Your task to perform on an android device: View the shopping cart on amazon. Search for jbl flip 4 on amazon, select the first entry, and add it to the cart. Image 0: 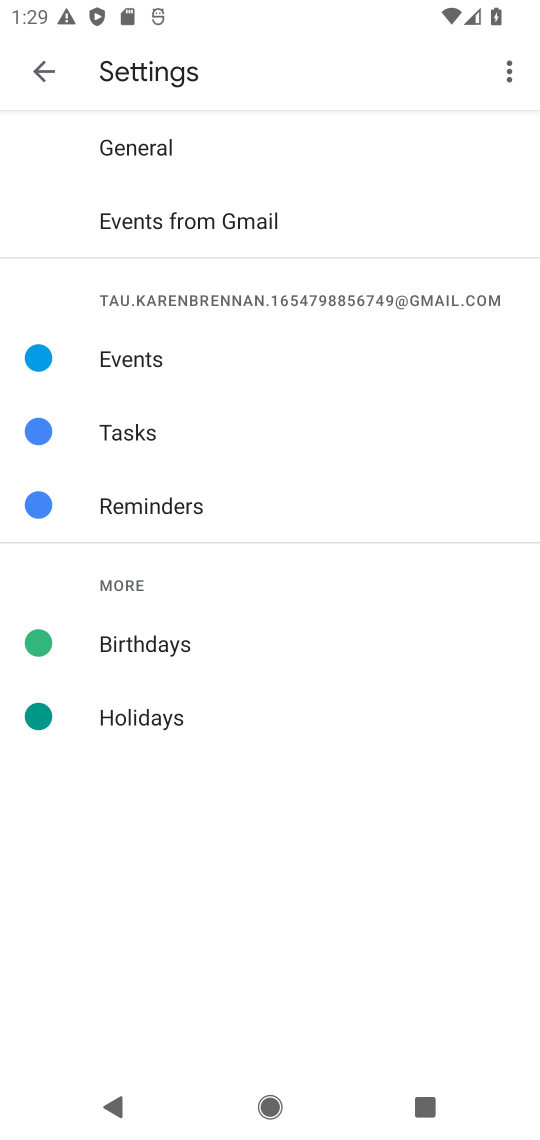
Step 0: press home button
Your task to perform on an android device: View the shopping cart on amazon. Search for jbl flip 4 on amazon, select the first entry, and add it to the cart. Image 1: 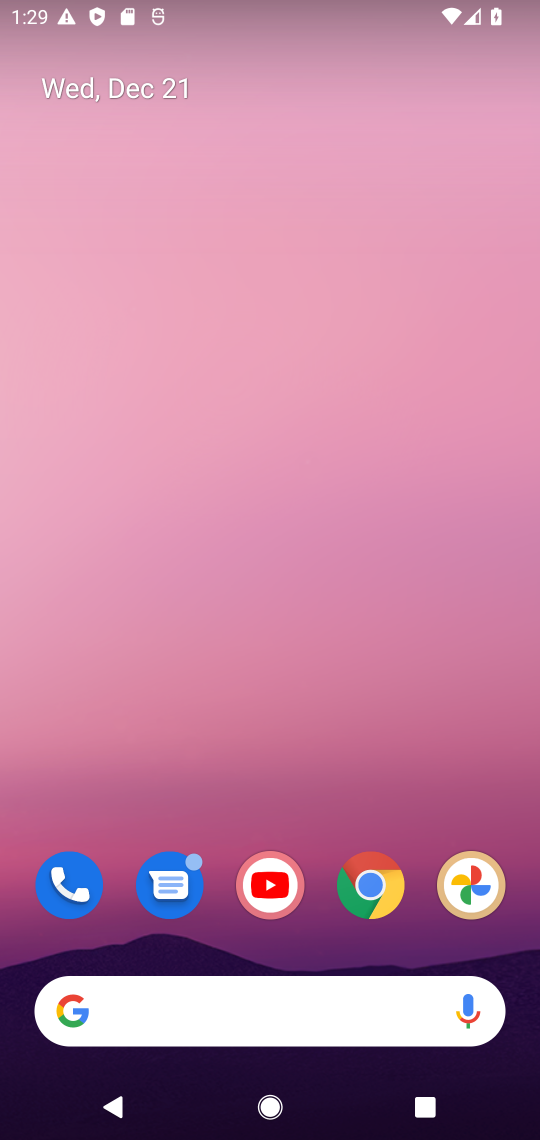
Step 1: drag from (380, 1041) to (301, 421)
Your task to perform on an android device: View the shopping cart on amazon. Search for jbl flip 4 on amazon, select the first entry, and add it to the cart. Image 2: 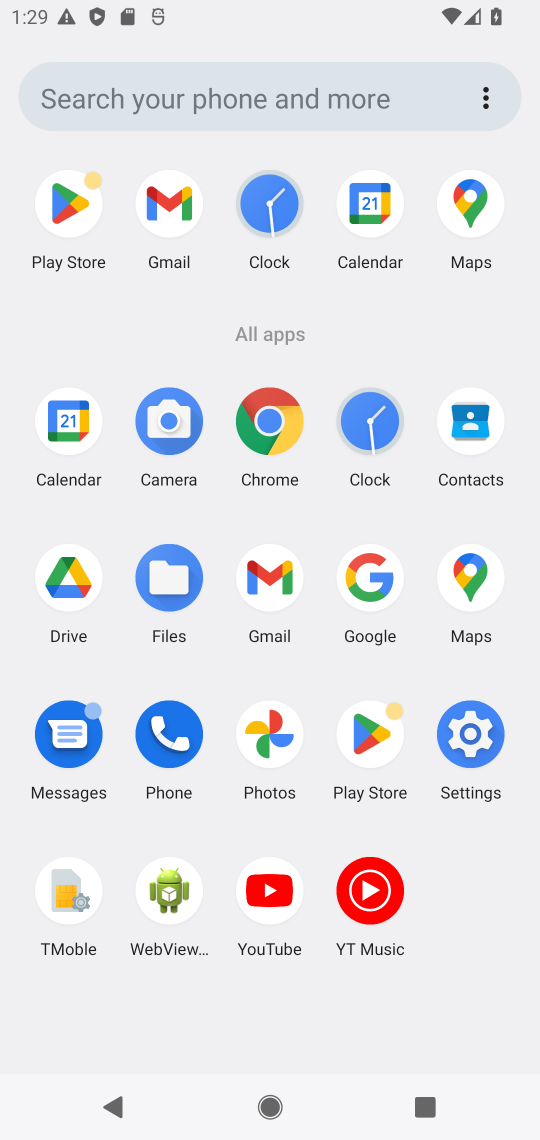
Step 2: click (368, 578)
Your task to perform on an android device: View the shopping cart on amazon. Search for jbl flip 4 on amazon, select the first entry, and add it to the cart. Image 3: 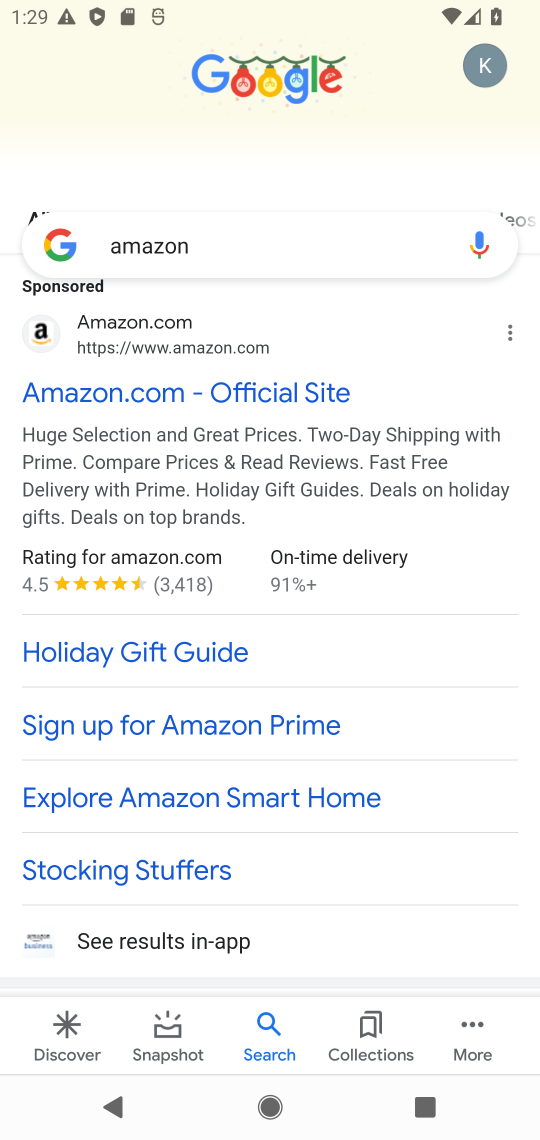
Step 3: click (120, 239)
Your task to perform on an android device: View the shopping cart on amazon. Search for jbl flip 4 on amazon, select the first entry, and add it to the cart. Image 4: 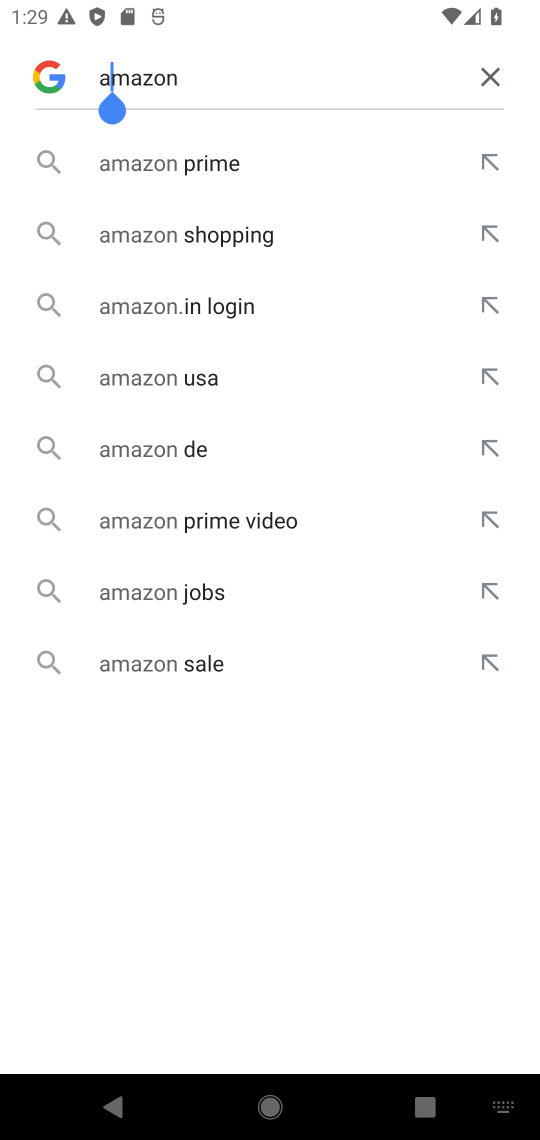
Step 4: click (186, 166)
Your task to perform on an android device: View the shopping cart on amazon. Search for jbl flip 4 on amazon, select the first entry, and add it to the cart. Image 5: 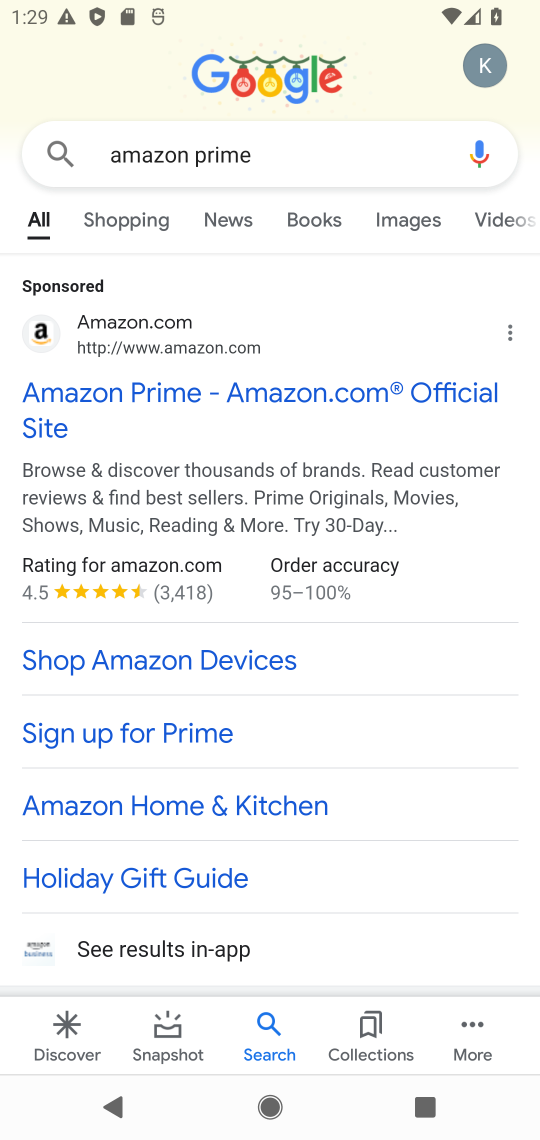
Step 5: click (170, 407)
Your task to perform on an android device: View the shopping cart on amazon. Search for jbl flip 4 on amazon, select the first entry, and add it to the cart. Image 6: 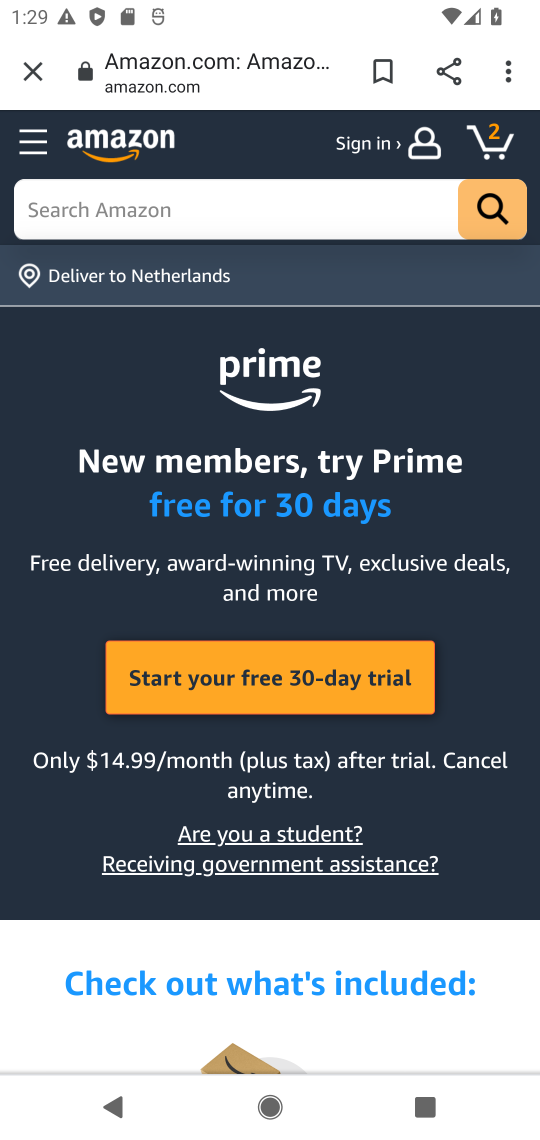
Step 6: click (480, 136)
Your task to perform on an android device: View the shopping cart on amazon. Search for jbl flip 4 on amazon, select the first entry, and add it to the cart. Image 7: 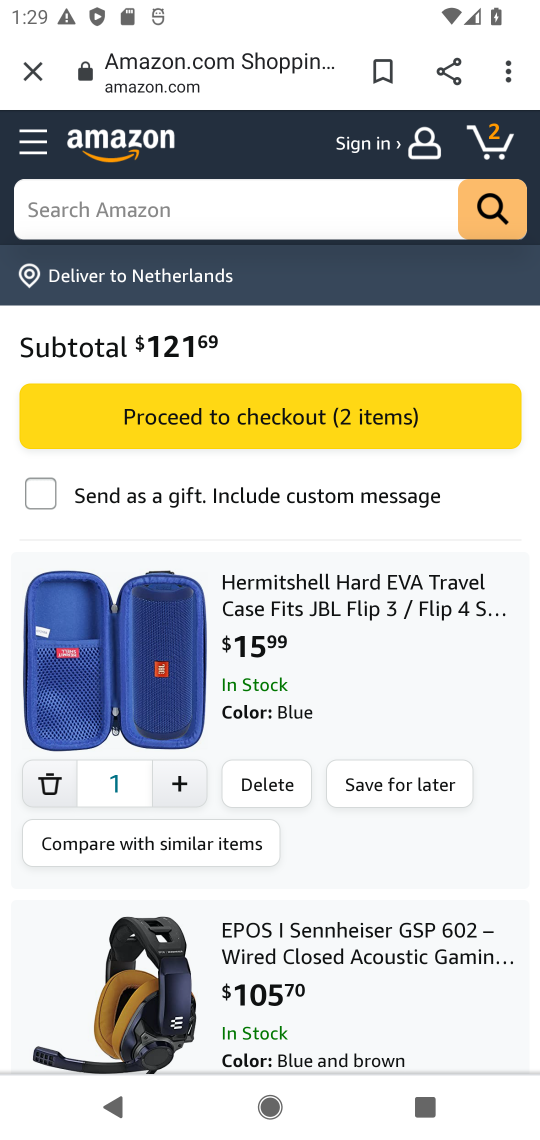
Step 7: click (252, 210)
Your task to perform on an android device: View the shopping cart on amazon. Search for jbl flip 4 on amazon, select the first entry, and add it to the cart. Image 8: 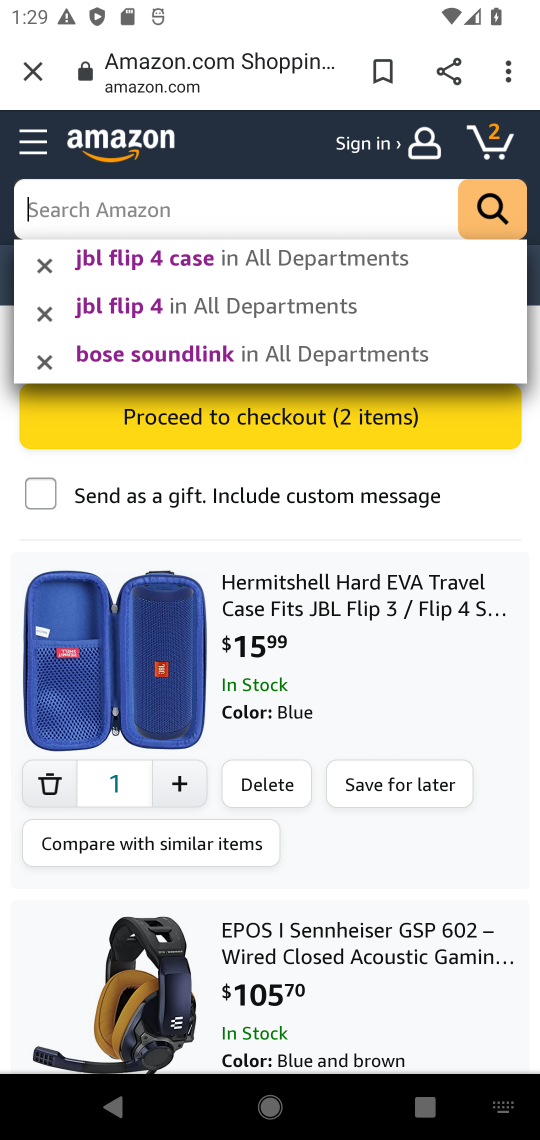
Step 8: type "jbl flip 4"
Your task to perform on an android device: View the shopping cart on amazon. Search for jbl flip 4 on amazon, select the first entry, and add it to the cart. Image 9: 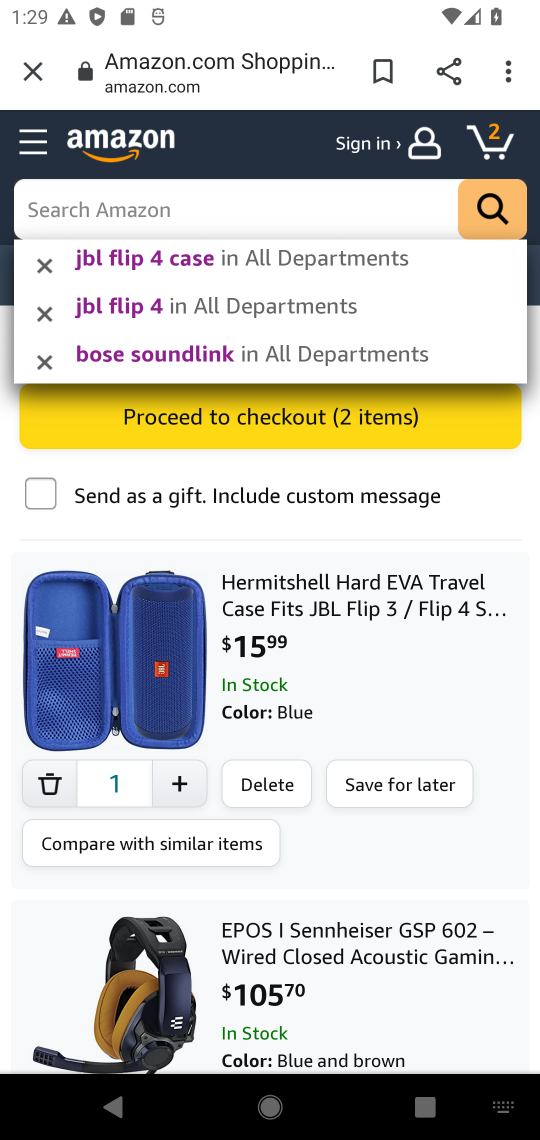
Step 9: click (486, 198)
Your task to perform on an android device: View the shopping cart on amazon. Search for jbl flip 4 on amazon, select the first entry, and add it to the cart. Image 10: 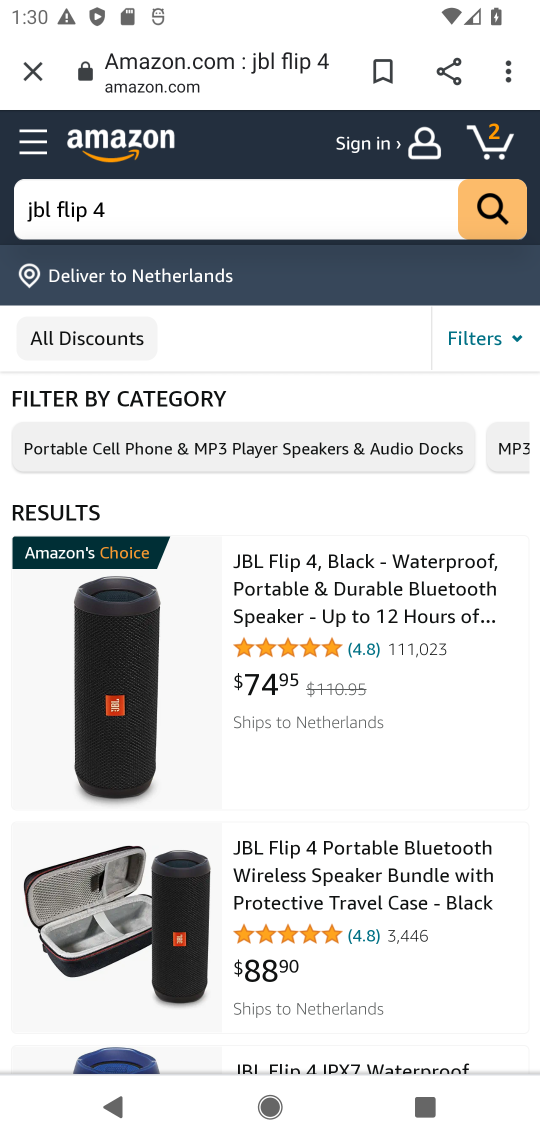
Step 10: click (306, 578)
Your task to perform on an android device: View the shopping cart on amazon. Search for jbl flip 4 on amazon, select the first entry, and add it to the cart. Image 11: 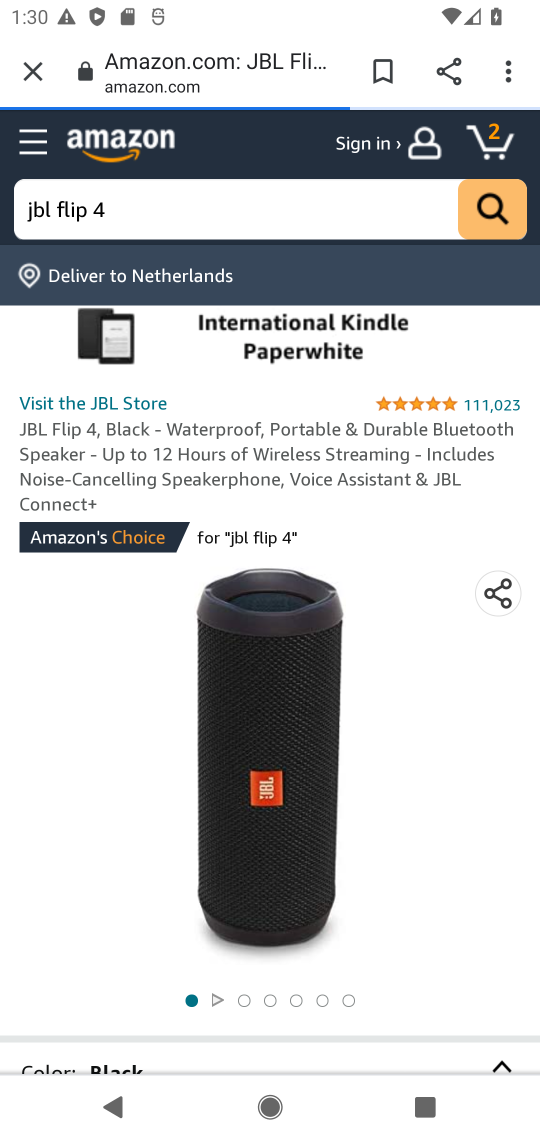
Step 11: drag from (448, 965) to (428, 487)
Your task to perform on an android device: View the shopping cart on amazon. Search for jbl flip 4 on amazon, select the first entry, and add it to the cart. Image 12: 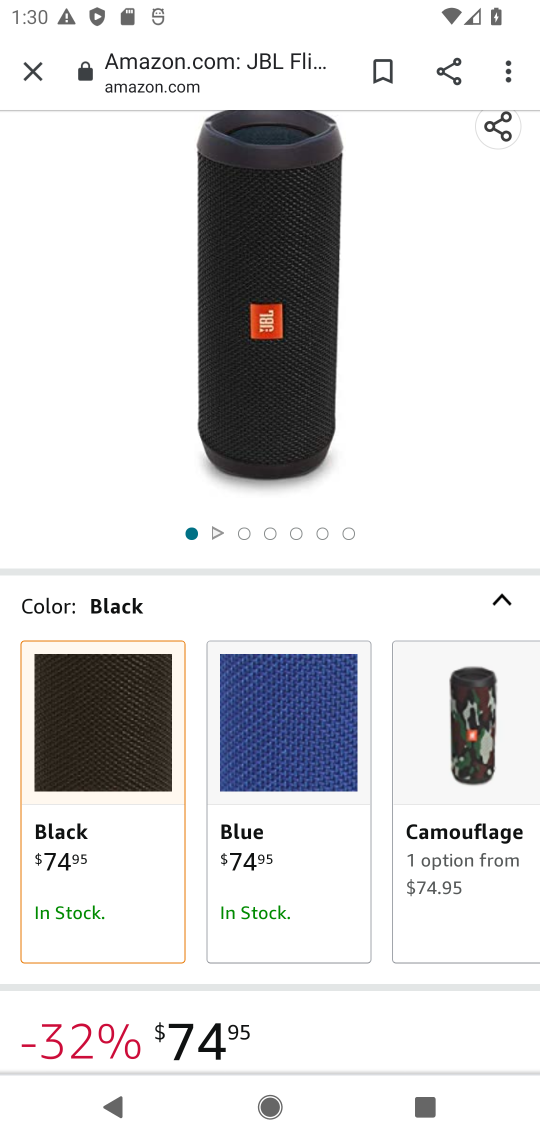
Step 12: drag from (435, 962) to (429, 501)
Your task to perform on an android device: View the shopping cart on amazon. Search for jbl flip 4 on amazon, select the first entry, and add it to the cart. Image 13: 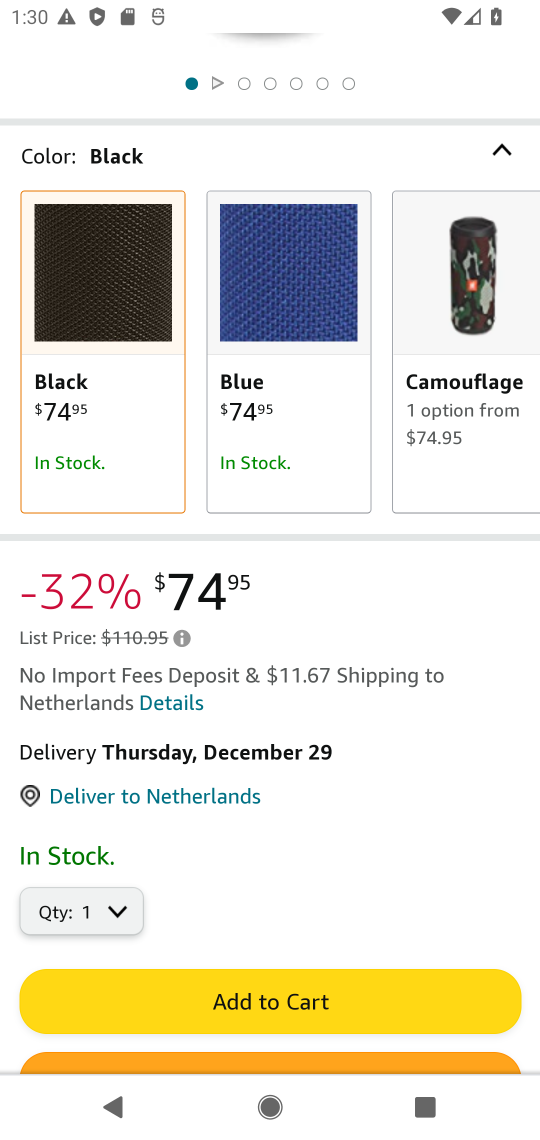
Step 13: click (311, 998)
Your task to perform on an android device: View the shopping cart on amazon. Search for jbl flip 4 on amazon, select the first entry, and add it to the cart. Image 14: 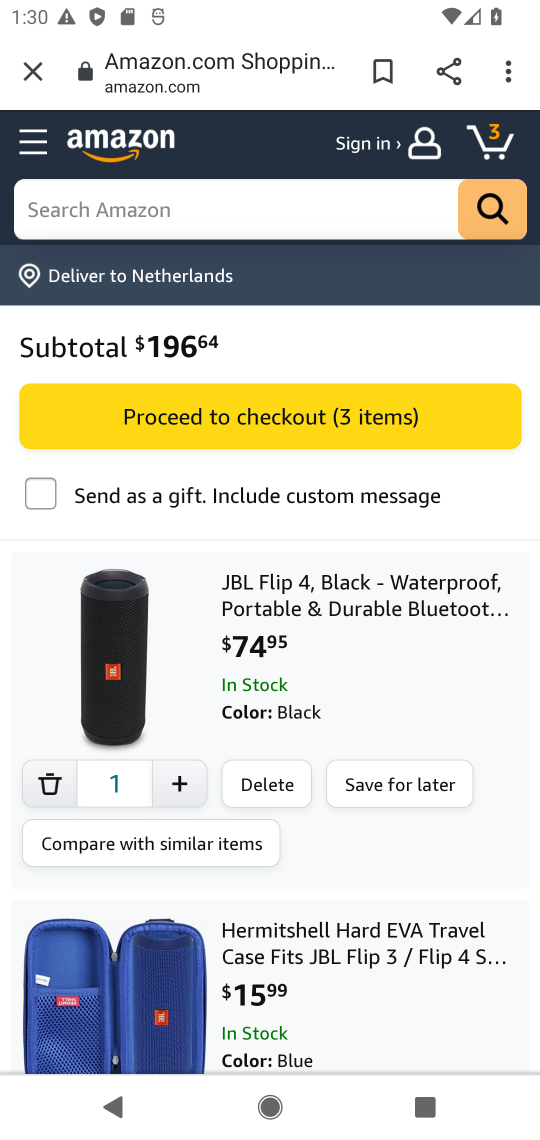
Step 14: click (255, 390)
Your task to perform on an android device: View the shopping cart on amazon. Search for jbl flip 4 on amazon, select the first entry, and add it to the cart. Image 15: 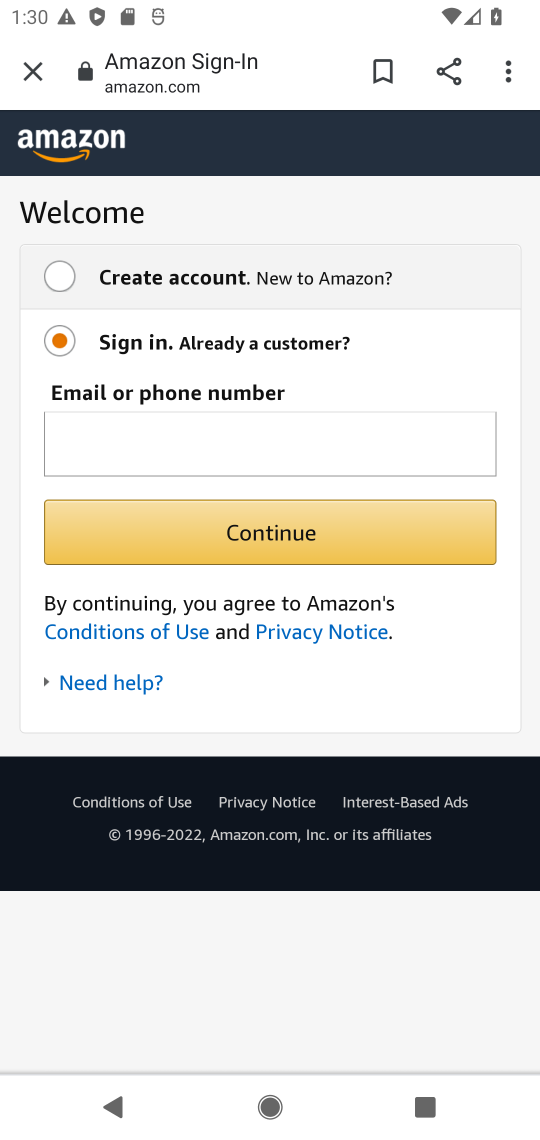
Step 15: task complete